Your task to perform on an android device: search for starred emails in the gmail app Image 0: 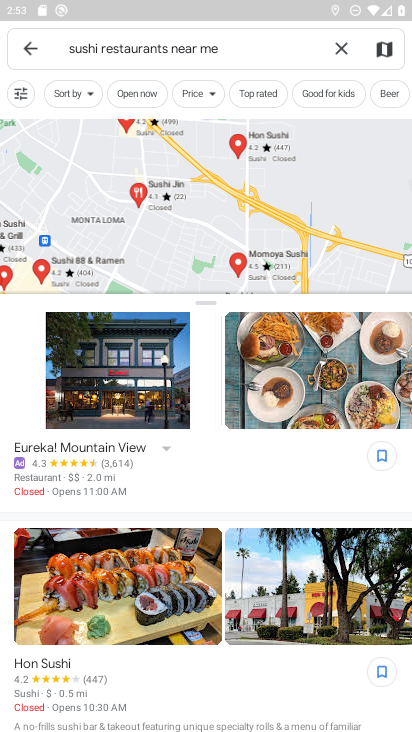
Step 0: press home button
Your task to perform on an android device: search for starred emails in the gmail app Image 1: 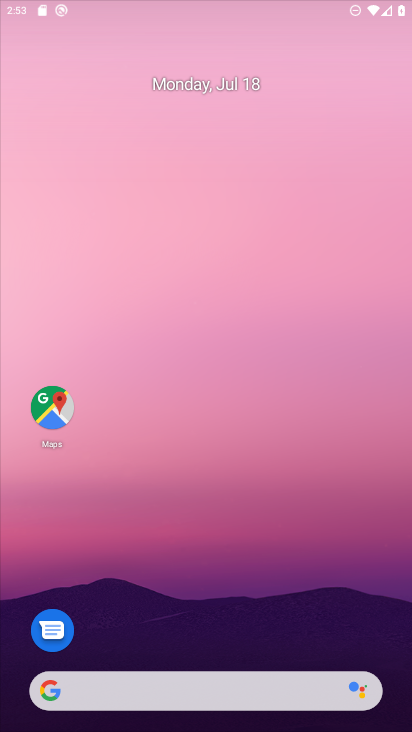
Step 1: drag from (186, 678) to (297, 6)
Your task to perform on an android device: search for starred emails in the gmail app Image 2: 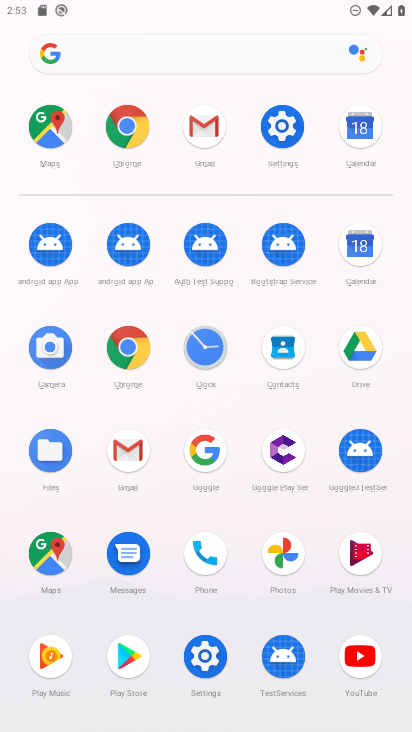
Step 2: click (126, 440)
Your task to perform on an android device: search for starred emails in the gmail app Image 3: 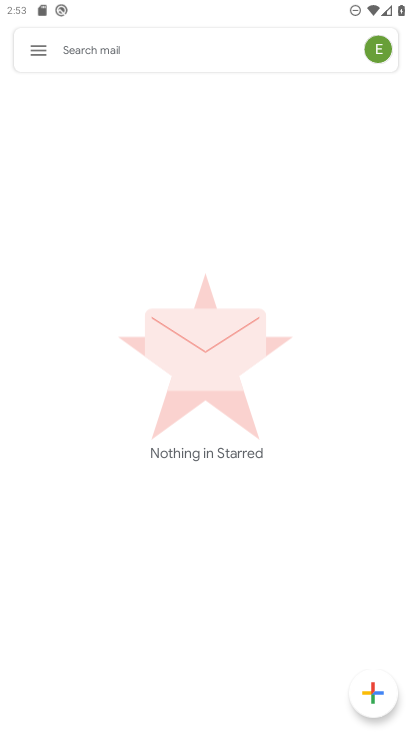
Step 3: task complete